Your task to perform on an android device: change timer sound Image 0: 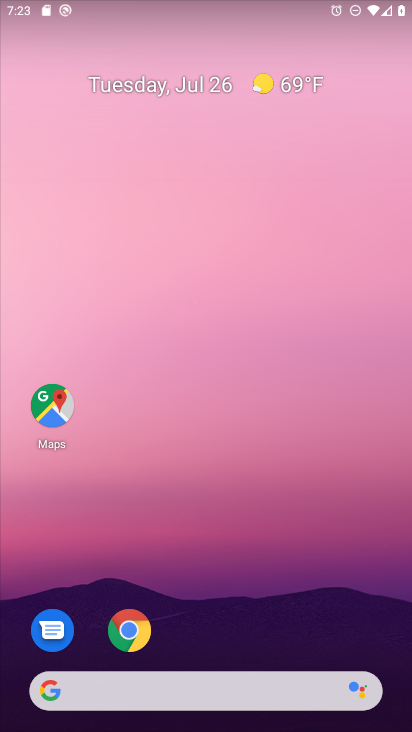
Step 0: drag from (269, 621) to (278, 148)
Your task to perform on an android device: change timer sound Image 1: 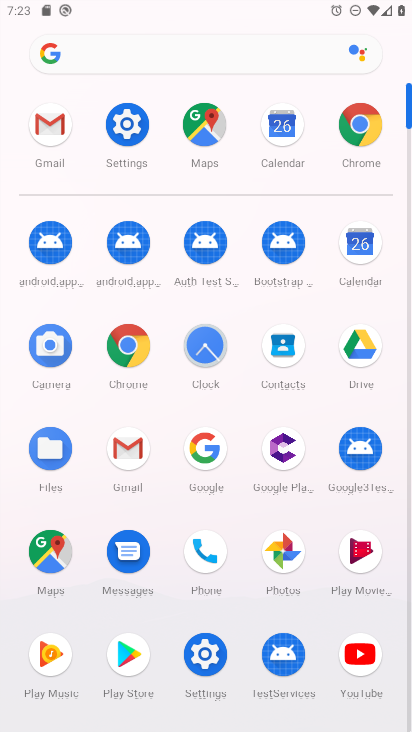
Step 1: click (206, 358)
Your task to perform on an android device: change timer sound Image 2: 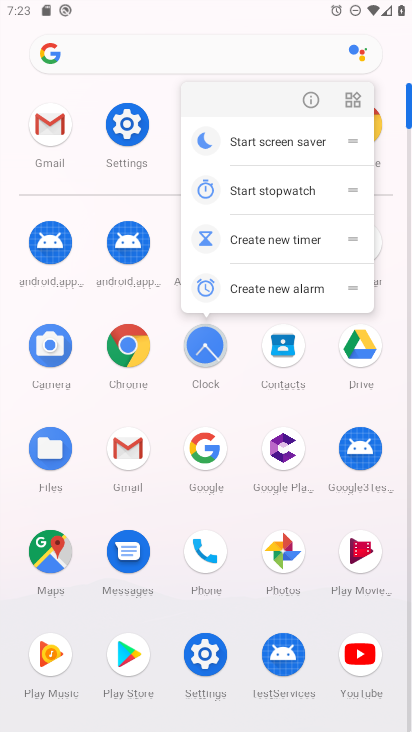
Step 2: click (207, 355)
Your task to perform on an android device: change timer sound Image 3: 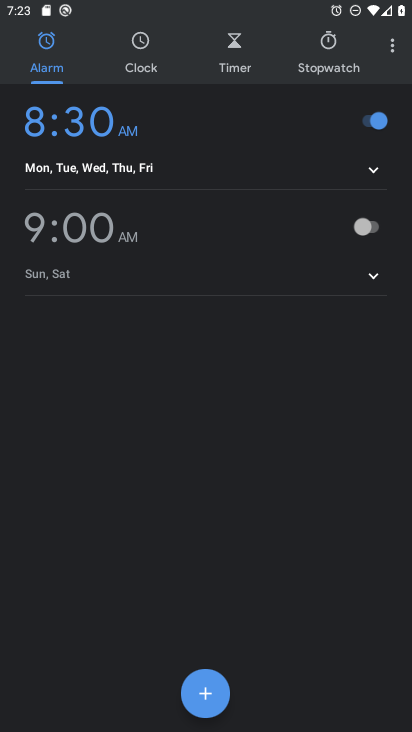
Step 3: click (401, 53)
Your task to perform on an android device: change timer sound Image 4: 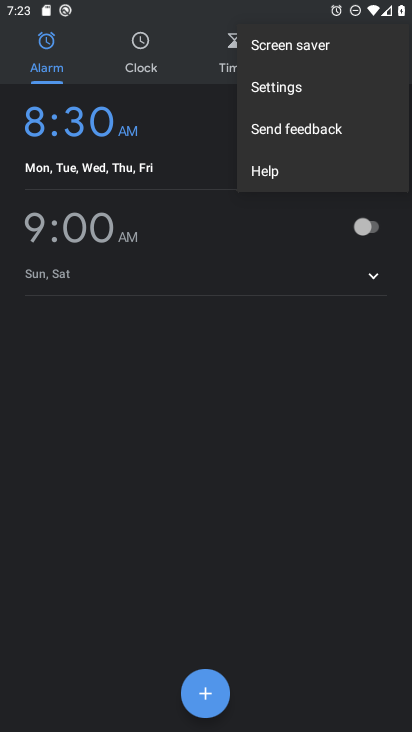
Step 4: click (310, 97)
Your task to perform on an android device: change timer sound Image 5: 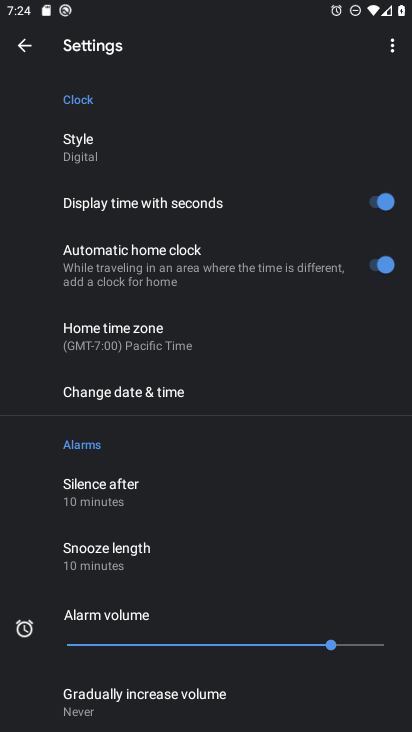
Step 5: drag from (222, 503) to (215, 326)
Your task to perform on an android device: change timer sound Image 6: 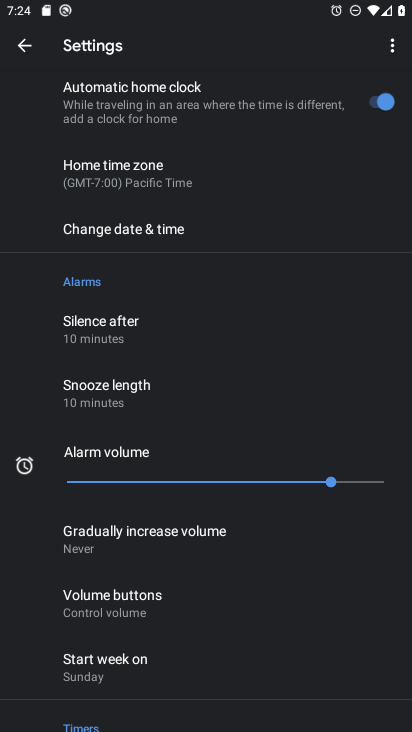
Step 6: drag from (228, 585) to (207, 273)
Your task to perform on an android device: change timer sound Image 7: 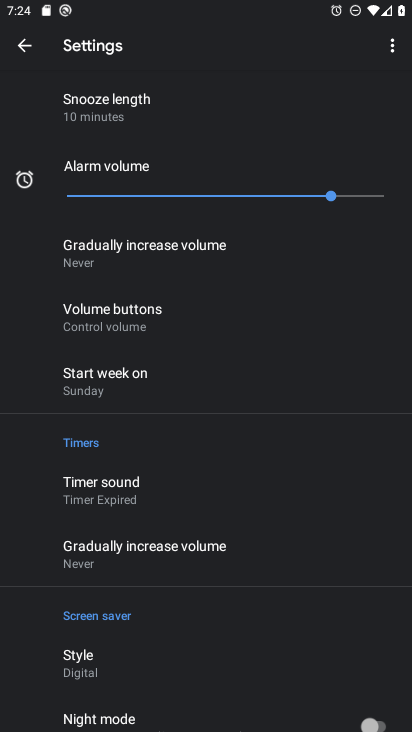
Step 7: click (187, 484)
Your task to perform on an android device: change timer sound Image 8: 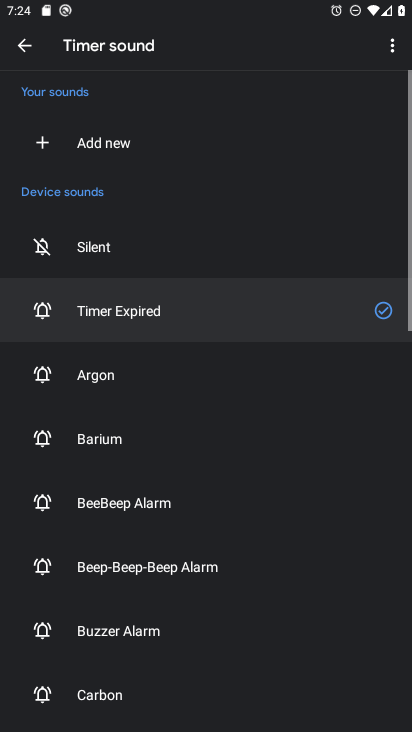
Step 8: click (145, 386)
Your task to perform on an android device: change timer sound Image 9: 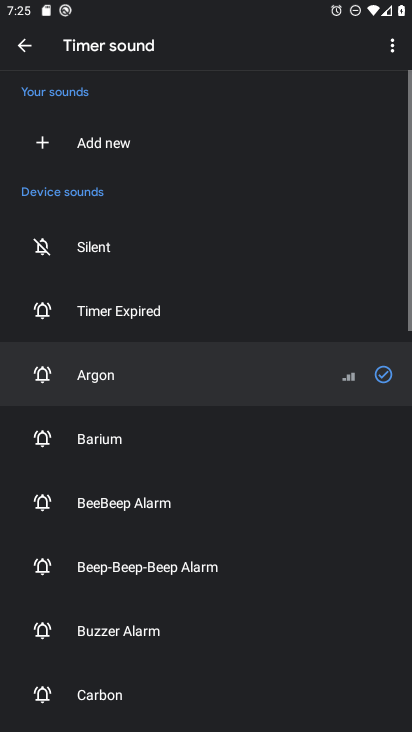
Step 9: task complete